Your task to perform on an android device: turn off data saver in the chrome app Image 0: 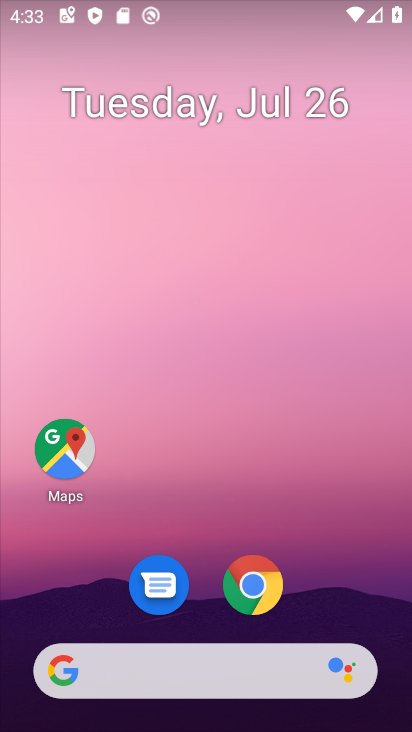
Step 0: click (258, 573)
Your task to perform on an android device: turn off data saver in the chrome app Image 1: 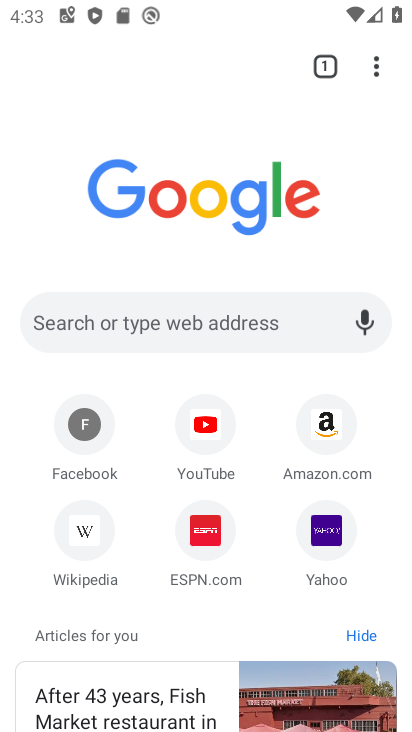
Step 1: click (376, 70)
Your task to perform on an android device: turn off data saver in the chrome app Image 2: 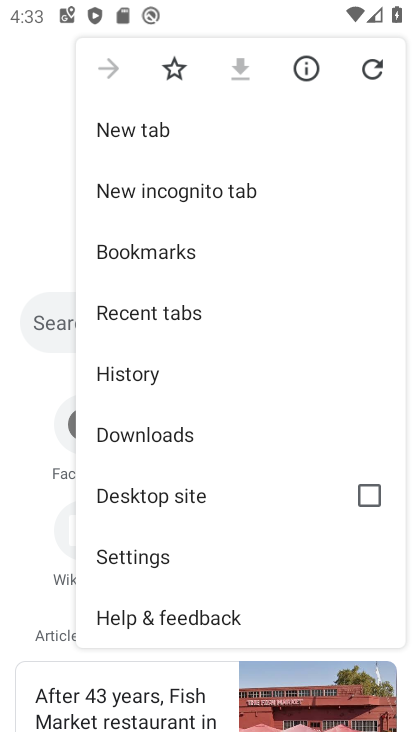
Step 2: click (156, 555)
Your task to perform on an android device: turn off data saver in the chrome app Image 3: 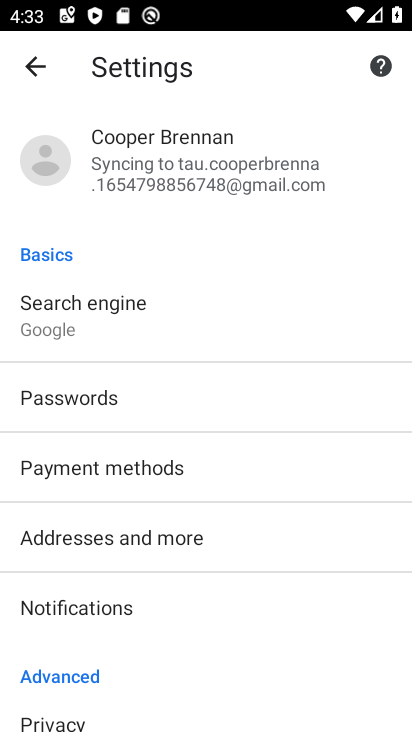
Step 3: drag from (261, 634) to (249, 145)
Your task to perform on an android device: turn off data saver in the chrome app Image 4: 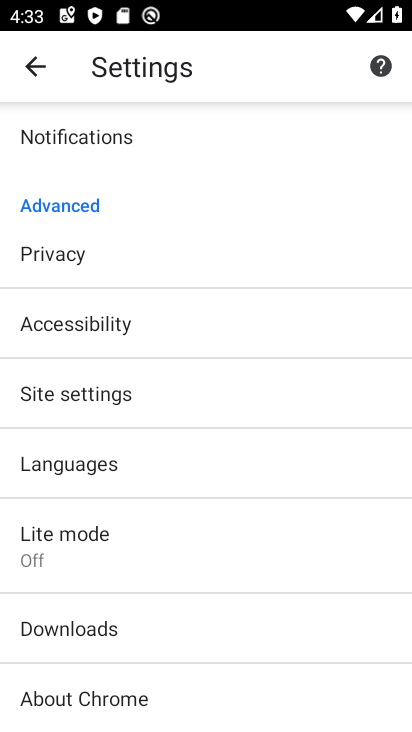
Step 4: click (150, 548)
Your task to perform on an android device: turn off data saver in the chrome app Image 5: 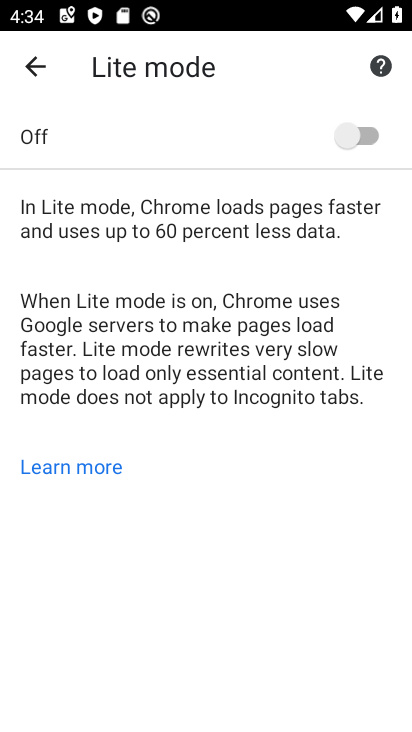
Step 5: task complete